Your task to perform on an android device: check battery use Image 0: 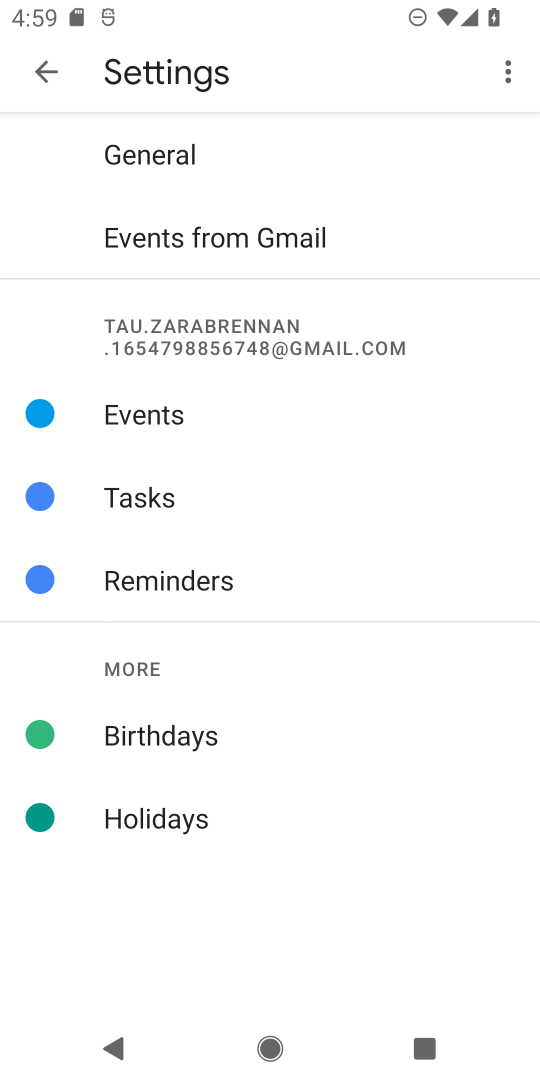
Step 0: press home button
Your task to perform on an android device: check battery use Image 1: 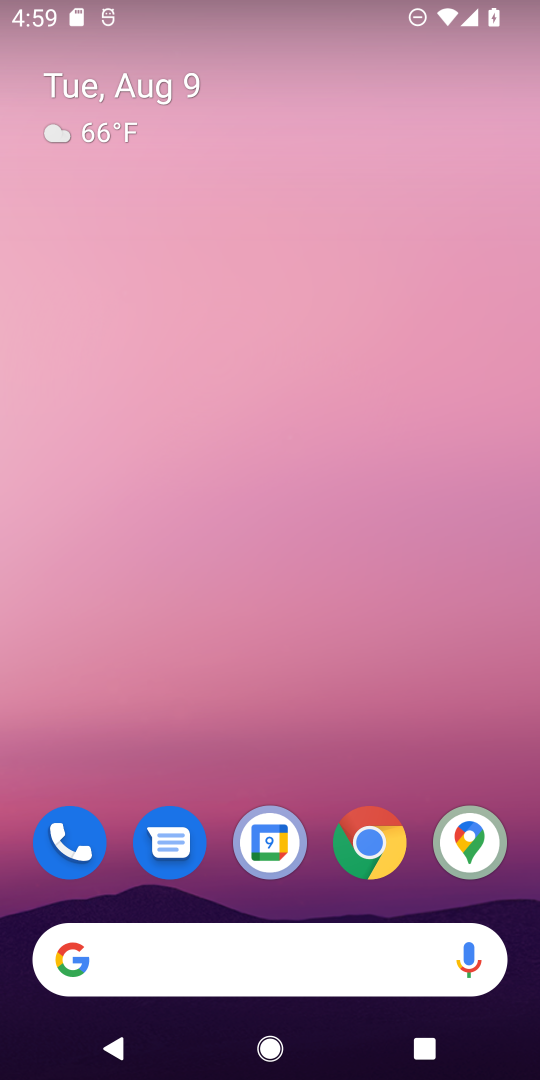
Step 1: drag from (280, 939) to (245, 190)
Your task to perform on an android device: check battery use Image 2: 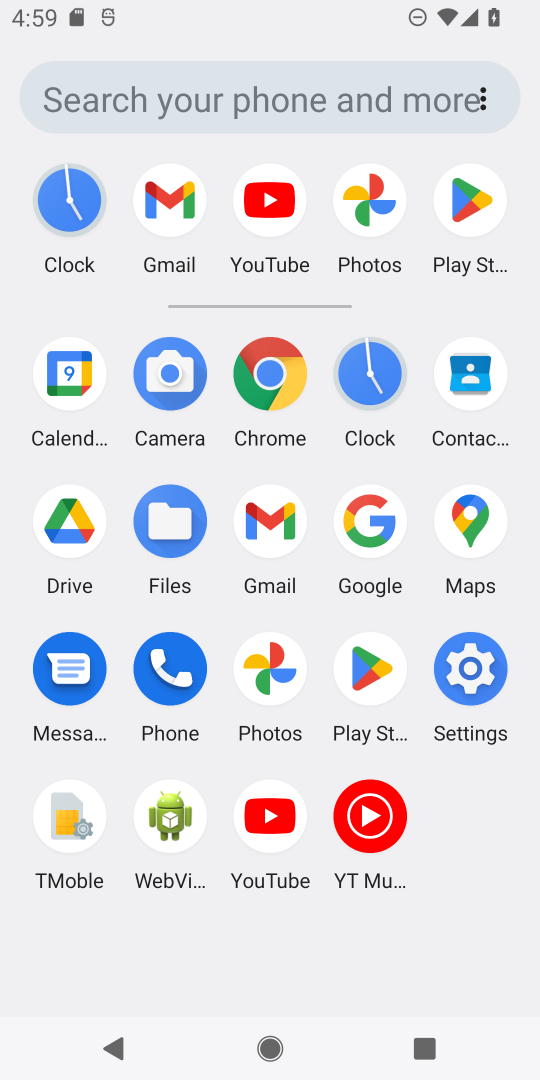
Step 2: click (497, 678)
Your task to perform on an android device: check battery use Image 3: 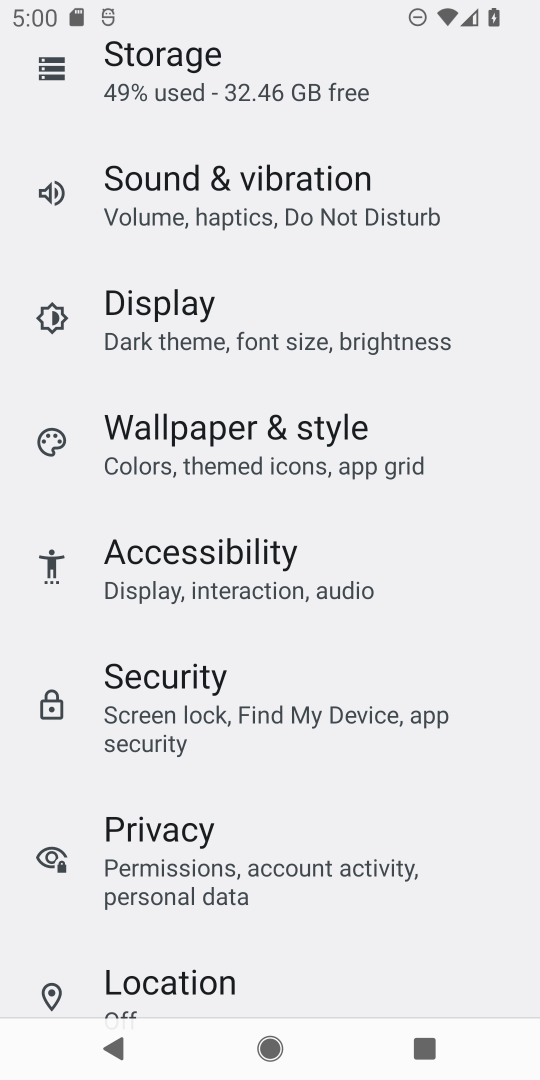
Step 3: drag from (475, 923) to (528, 702)
Your task to perform on an android device: check battery use Image 4: 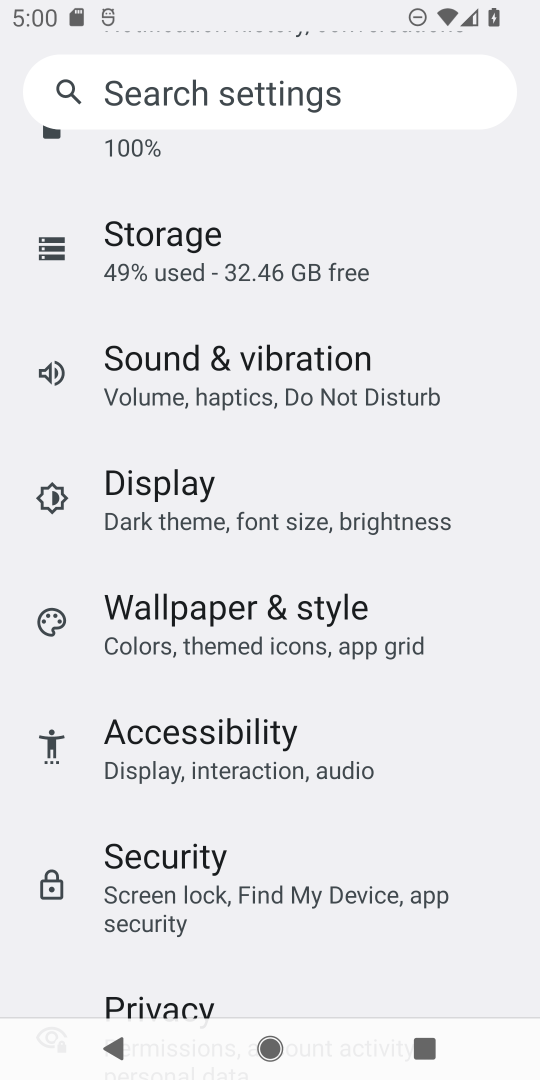
Step 4: drag from (462, 946) to (248, 474)
Your task to perform on an android device: check battery use Image 5: 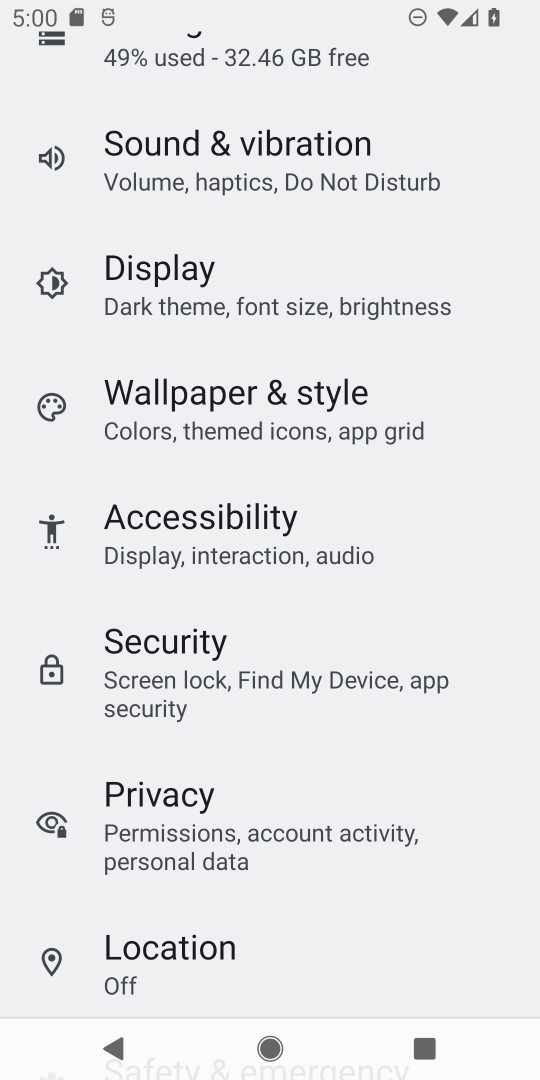
Step 5: drag from (469, 233) to (372, 721)
Your task to perform on an android device: check battery use Image 6: 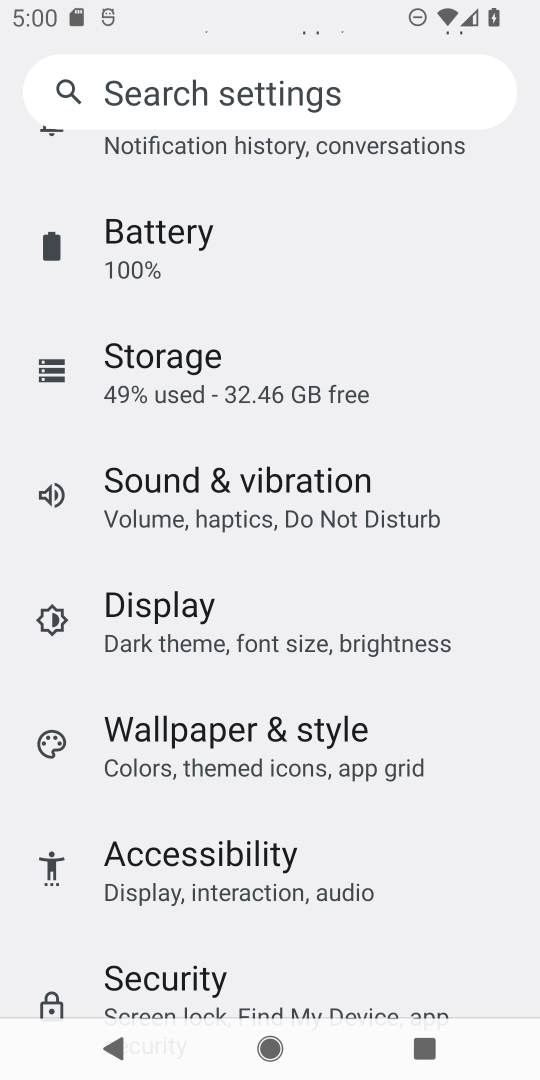
Step 6: click (178, 243)
Your task to perform on an android device: check battery use Image 7: 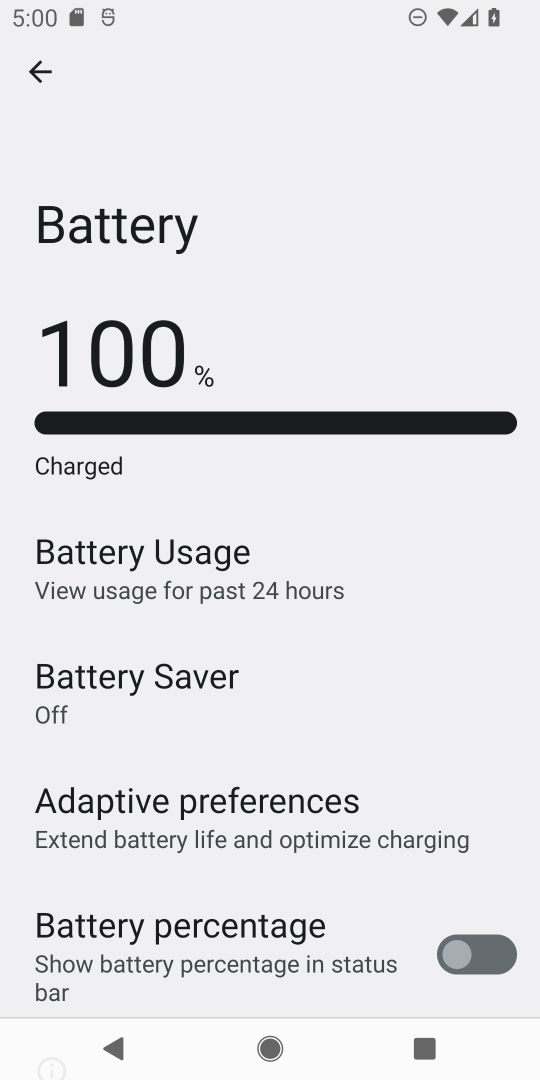
Step 7: task complete